Your task to perform on an android device: What is the recent news? Image 0: 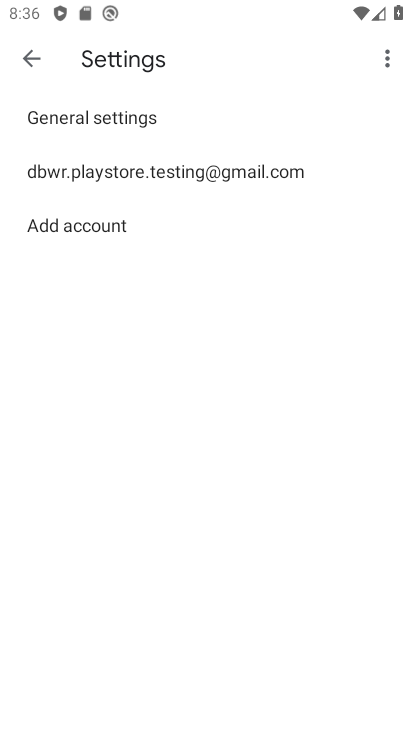
Step 0: press home button
Your task to perform on an android device: What is the recent news? Image 1: 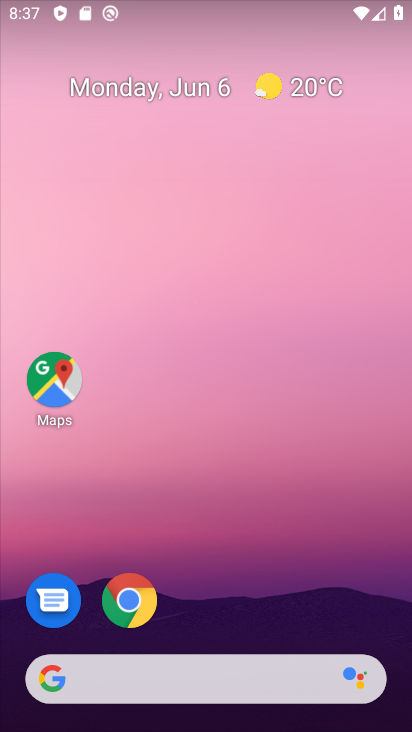
Step 1: click (164, 680)
Your task to perform on an android device: What is the recent news? Image 2: 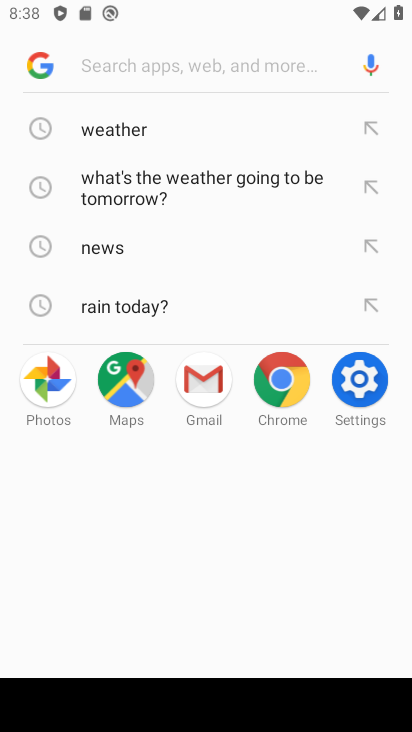
Step 2: click (93, 244)
Your task to perform on an android device: What is the recent news? Image 3: 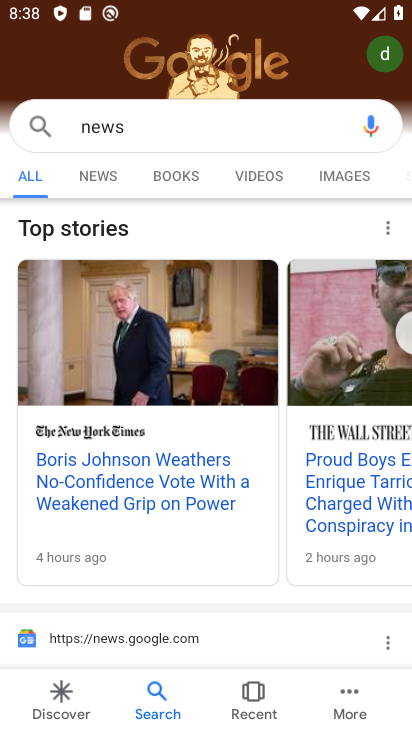
Step 3: task complete